Your task to perform on an android device: check out phone information Image 0: 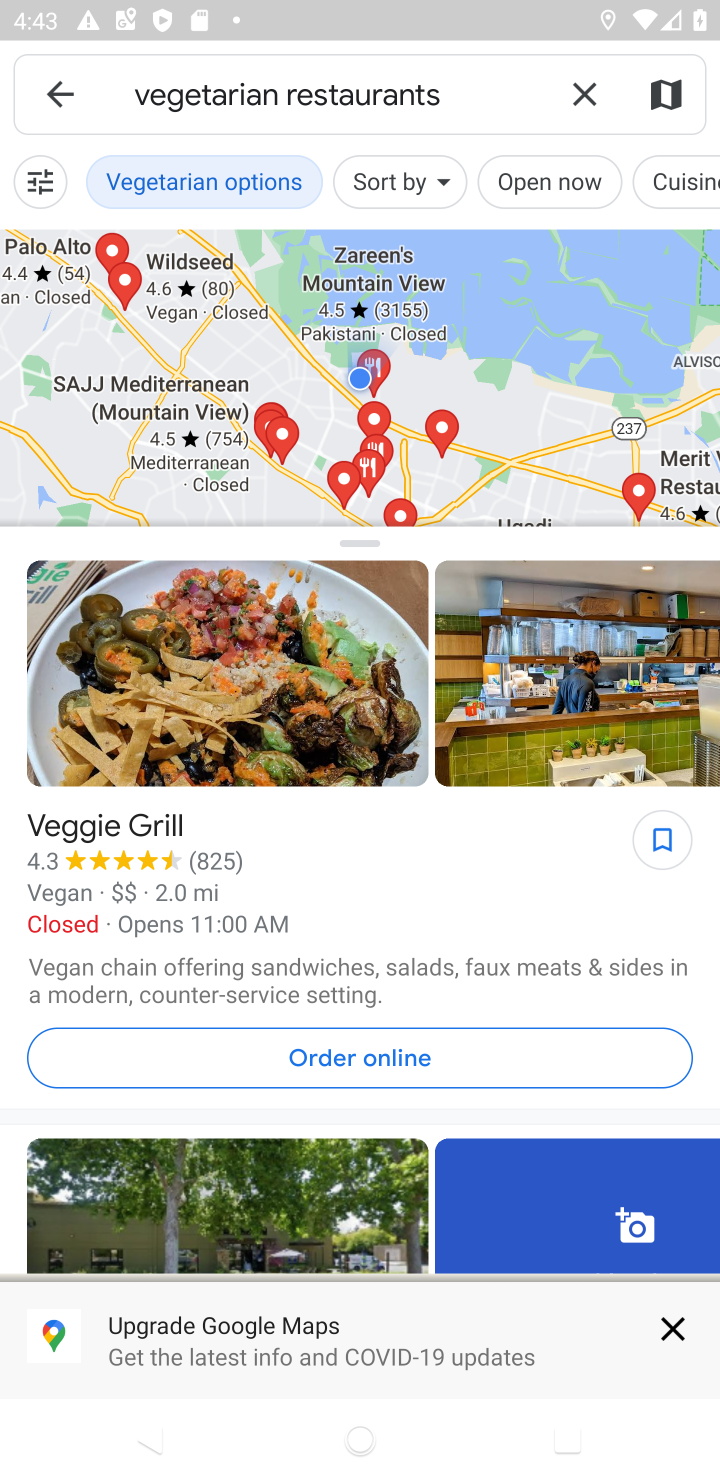
Step 0: press home button
Your task to perform on an android device: check out phone information Image 1: 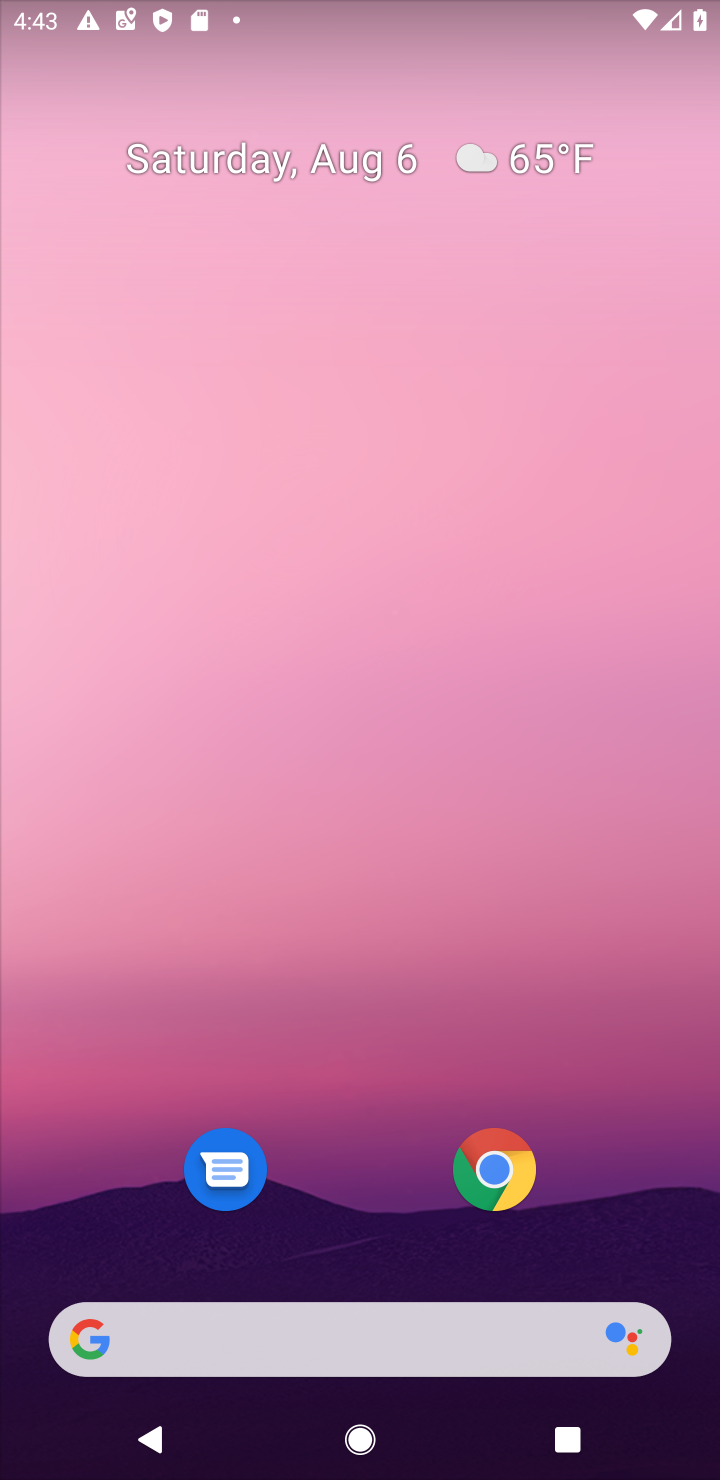
Step 1: drag from (361, 831) to (334, 150)
Your task to perform on an android device: check out phone information Image 2: 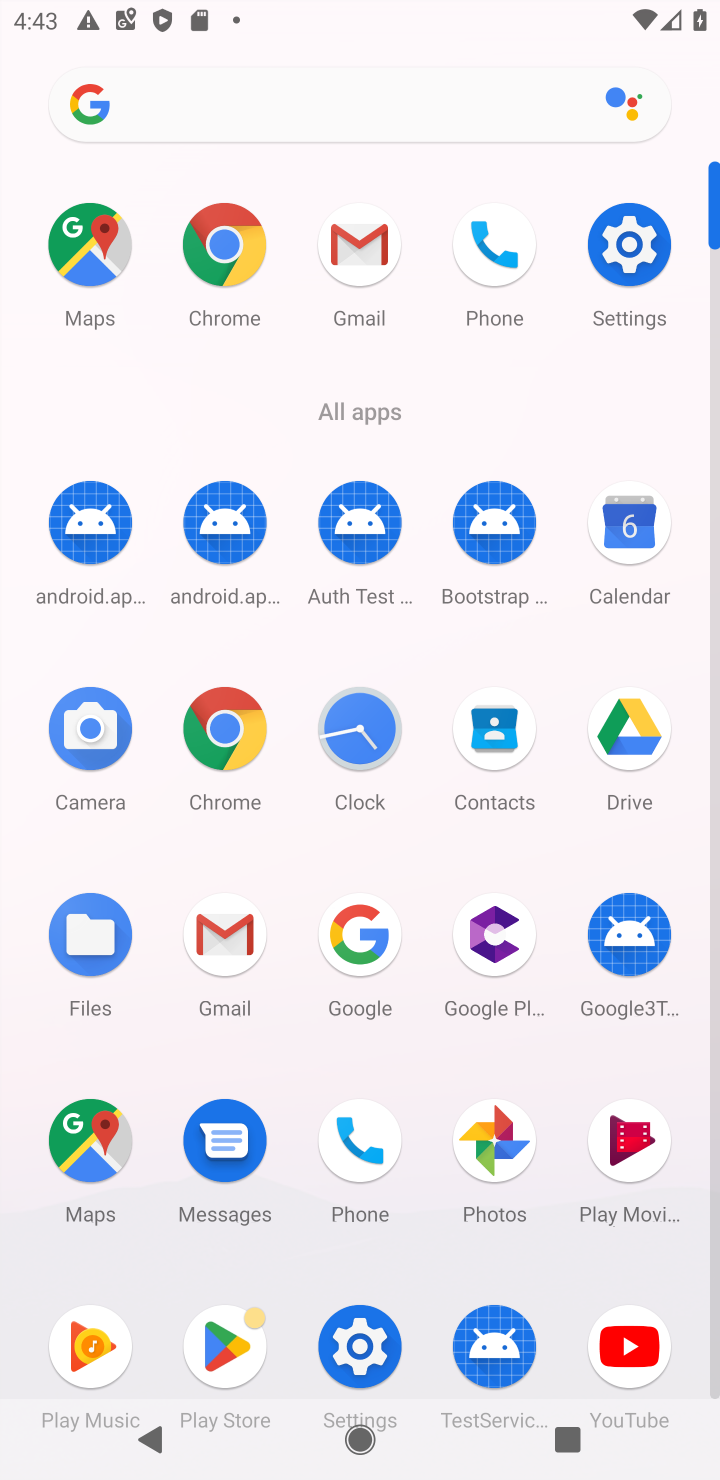
Step 2: click (619, 234)
Your task to perform on an android device: check out phone information Image 3: 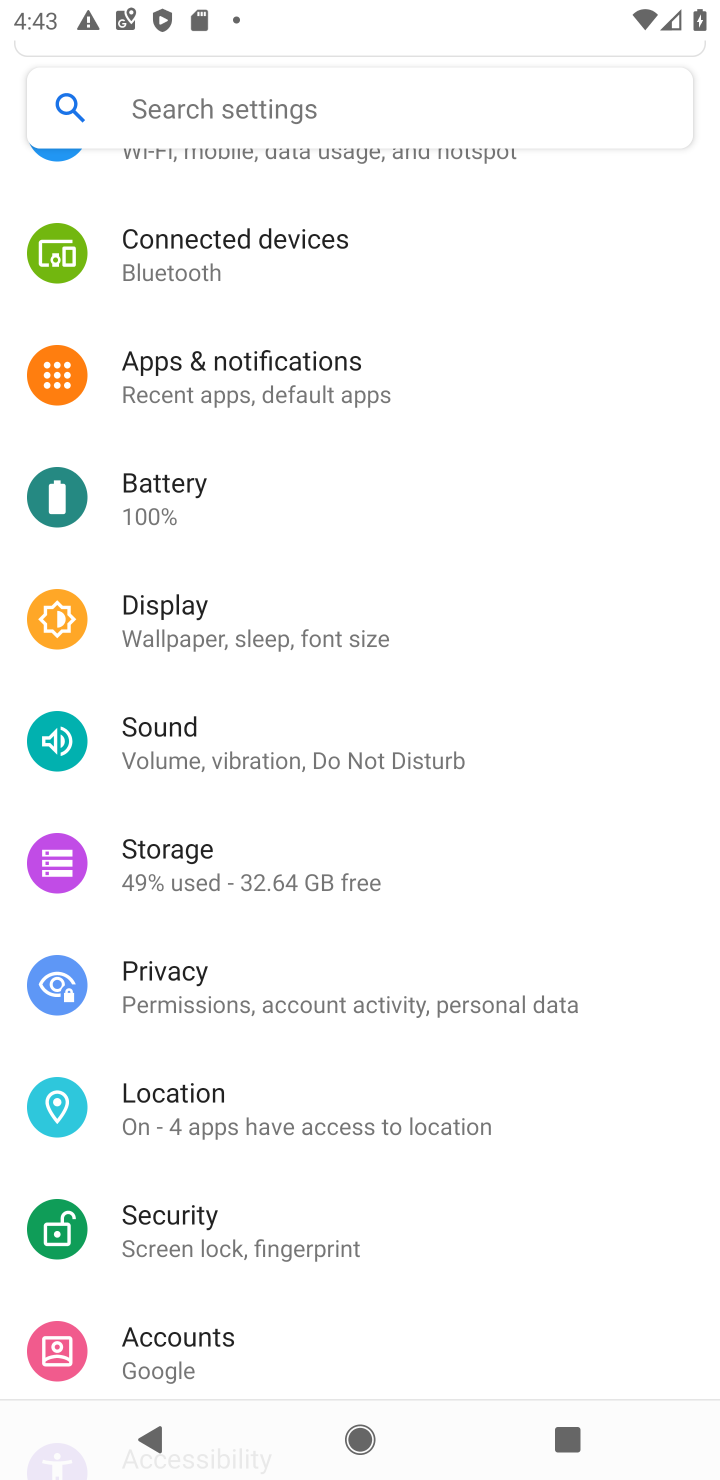
Step 3: drag from (264, 1210) to (155, 144)
Your task to perform on an android device: check out phone information Image 4: 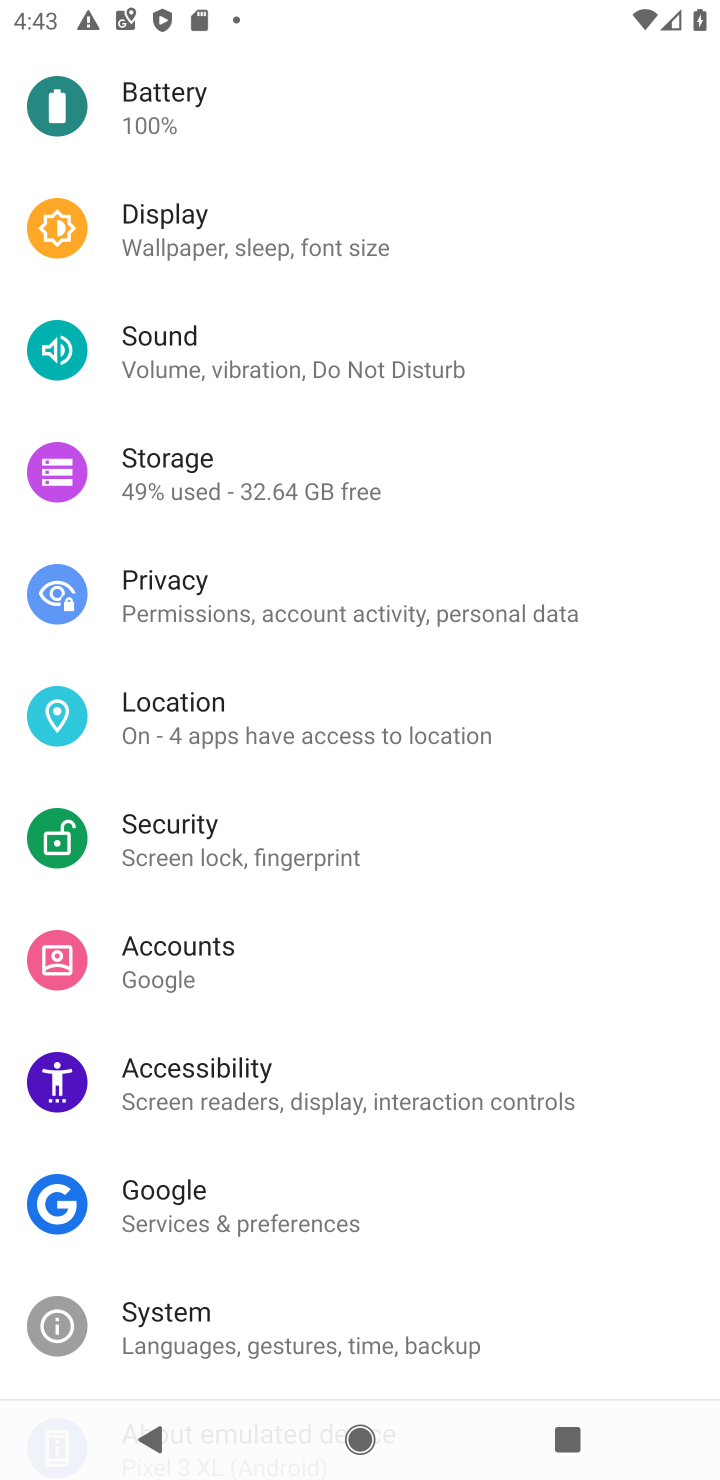
Step 4: drag from (177, 1139) to (127, 668)
Your task to perform on an android device: check out phone information Image 5: 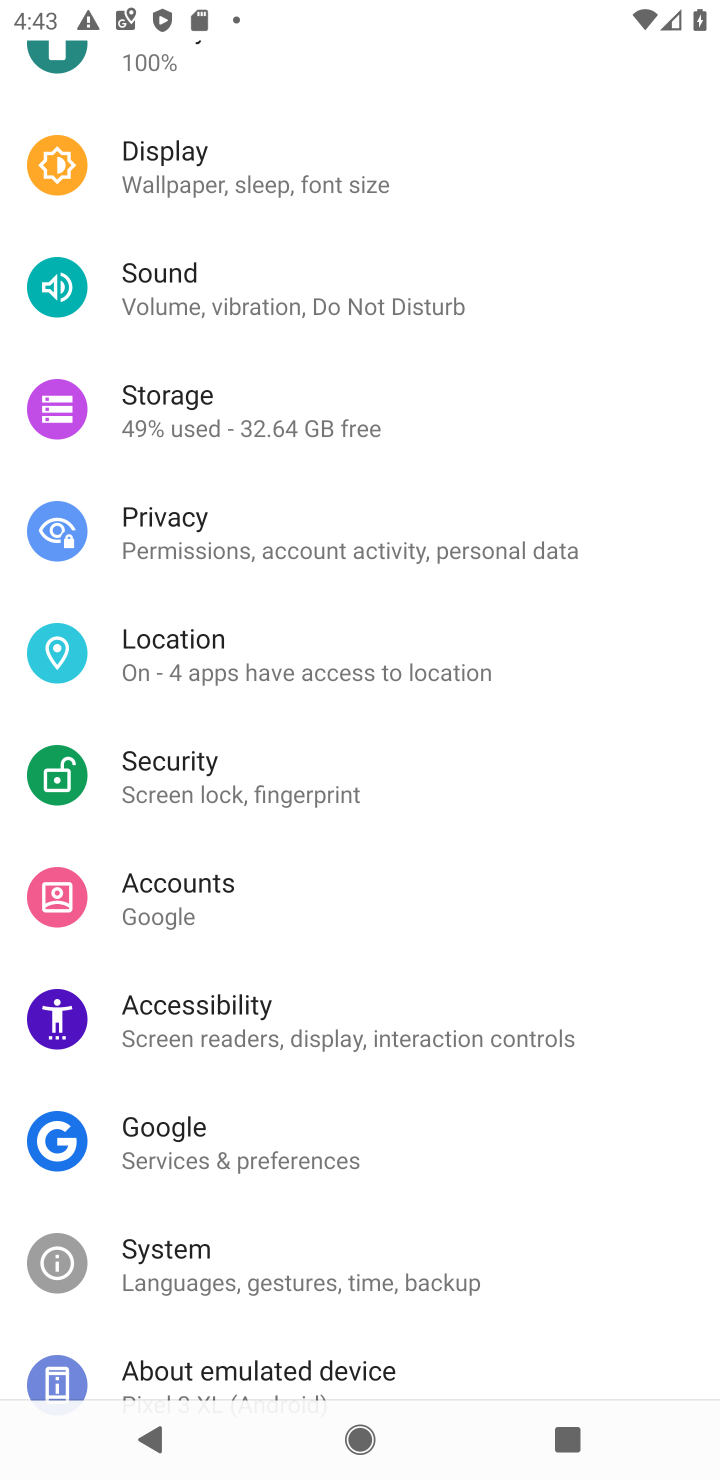
Step 5: click (261, 1359)
Your task to perform on an android device: check out phone information Image 6: 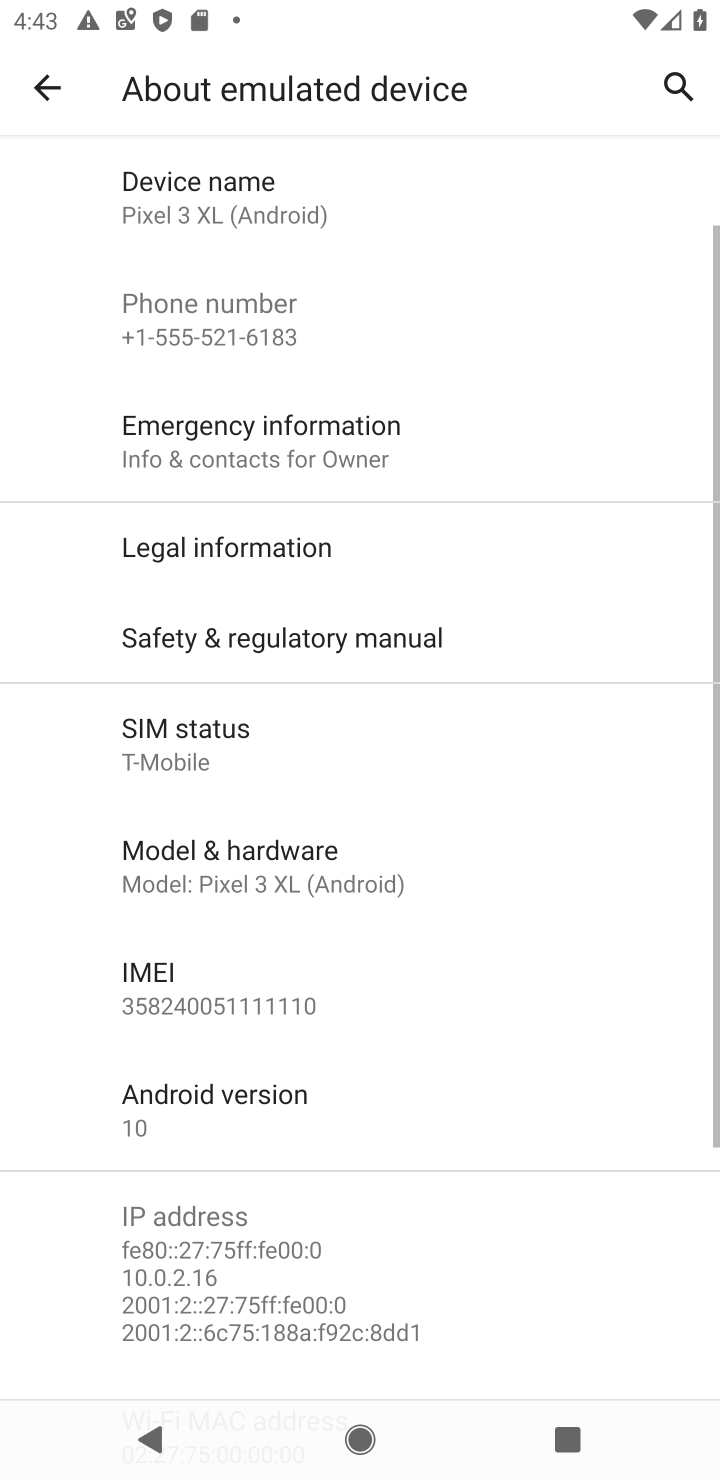
Step 6: task complete